Your task to perform on an android device: Is it going to rain this weekend? Image 0: 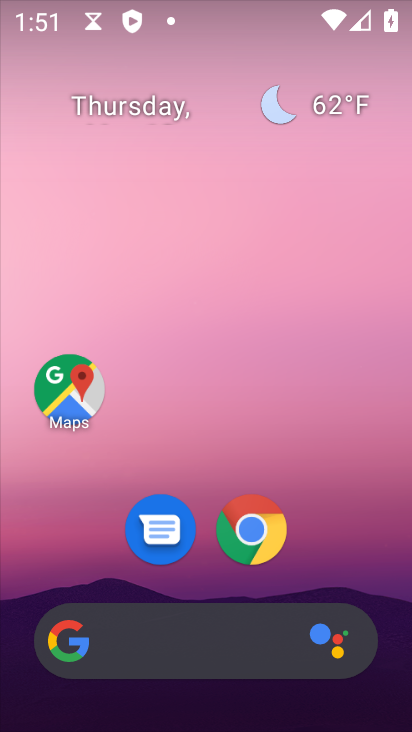
Step 0: drag from (331, 541) to (281, 167)
Your task to perform on an android device: Is it going to rain this weekend? Image 1: 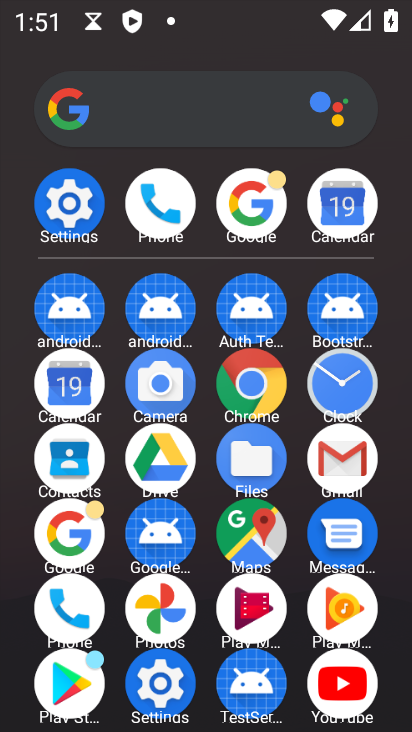
Step 1: click (247, 206)
Your task to perform on an android device: Is it going to rain this weekend? Image 2: 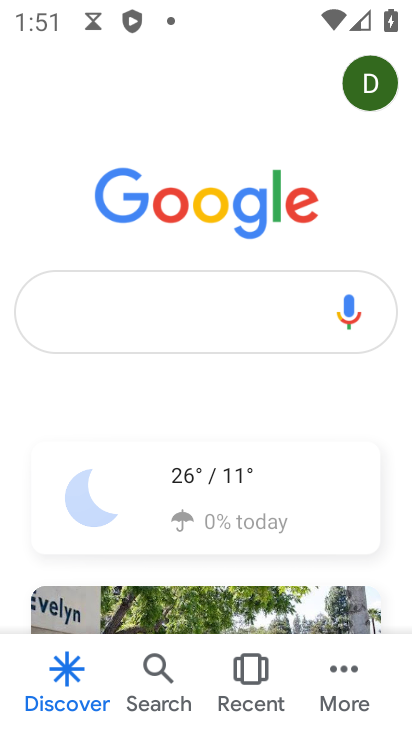
Step 2: click (187, 318)
Your task to perform on an android device: Is it going to rain this weekend? Image 3: 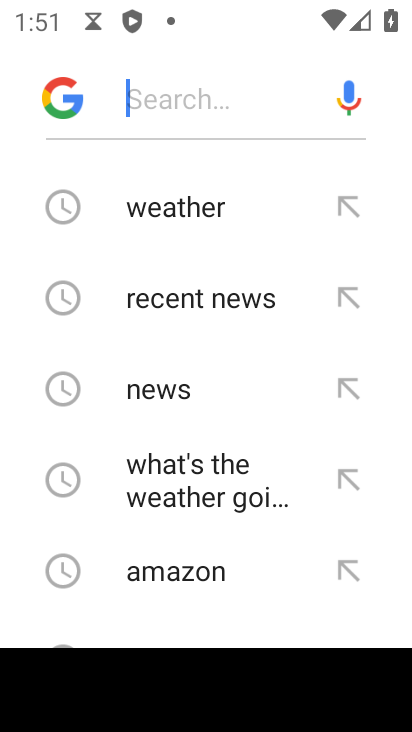
Step 3: type "Is it going to rain this weekend?"
Your task to perform on an android device: Is it going to rain this weekend? Image 4: 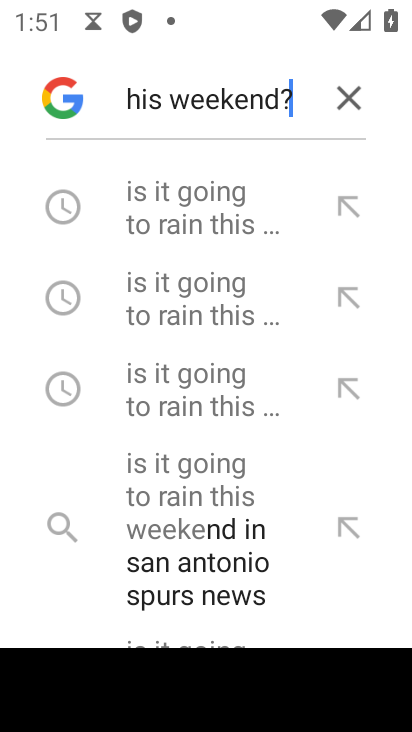
Step 4: type ""
Your task to perform on an android device: Is it going to rain this weekend? Image 5: 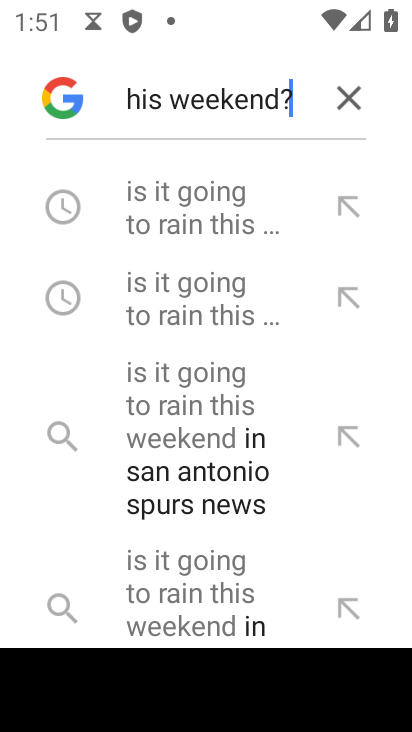
Step 5: click (201, 249)
Your task to perform on an android device: Is it going to rain this weekend? Image 6: 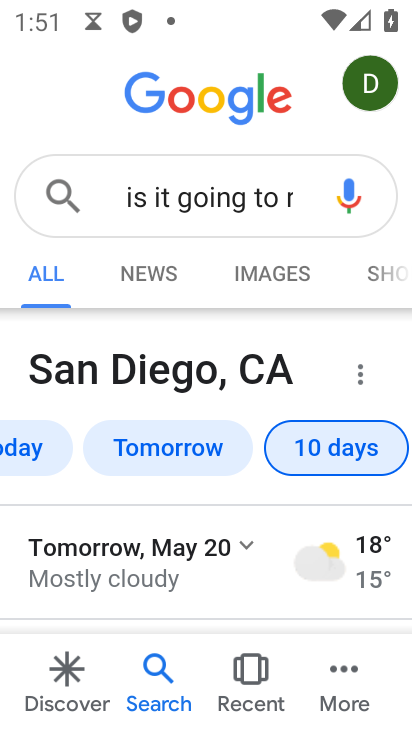
Step 6: task complete